Your task to perform on an android device: Clear the shopping cart on target.com. Search for "bose quietcomfort 35" on target.com, select the first entry, and add it to the cart. Image 0: 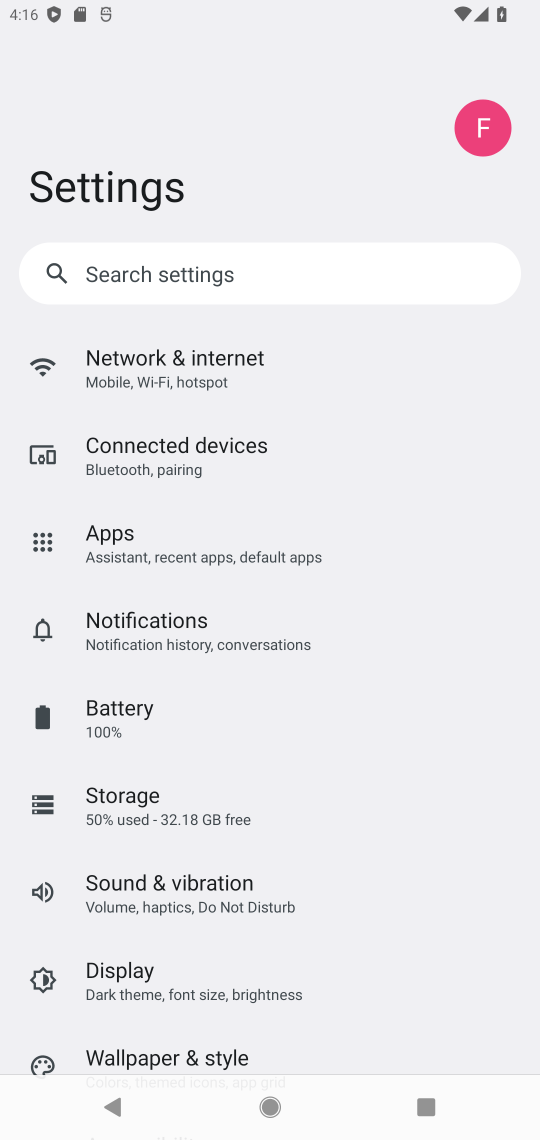
Step 0: press home button
Your task to perform on an android device: Clear the shopping cart on target.com. Search for "bose quietcomfort 35" on target.com, select the first entry, and add it to the cart. Image 1: 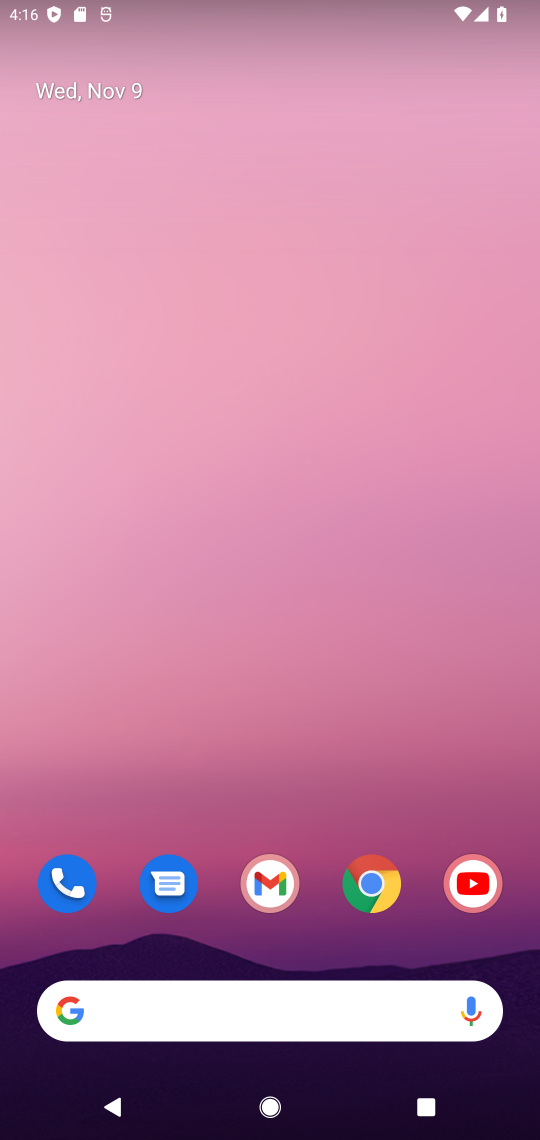
Step 1: click (383, 878)
Your task to perform on an android device: Clear the shopping cart on target.com. Search for "bose quietcomfort 35" on target.com, select the first entry, and add it to the cart. Image 2: 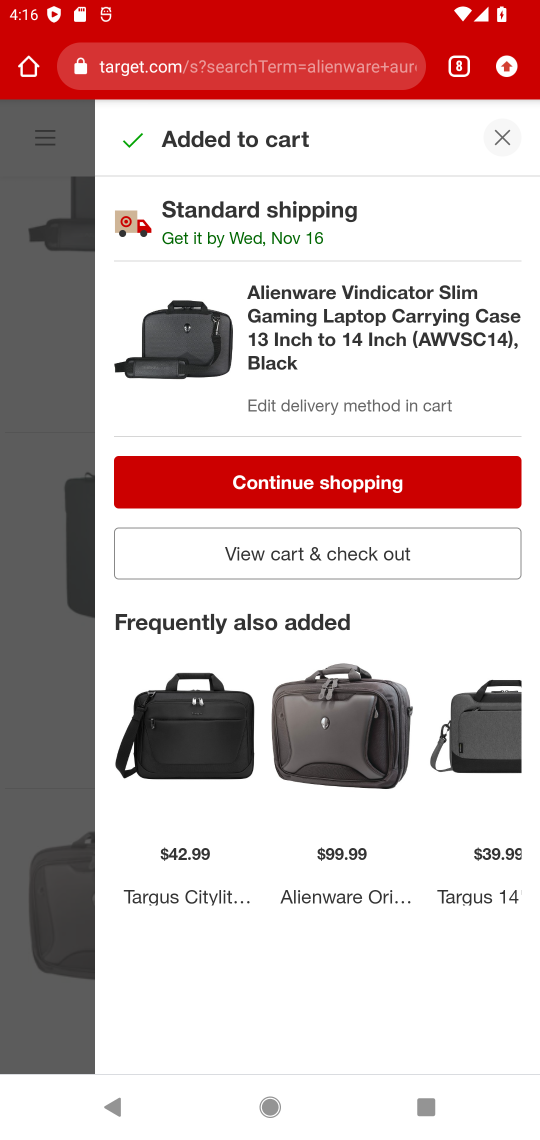
Step 2: click (496, 136)
Your task to perform on an android device: Clear the shopping cart on target.com. Search for "bose quietcomfort 35" on target.com, select the first entry, and add it to the cart. Image 3: 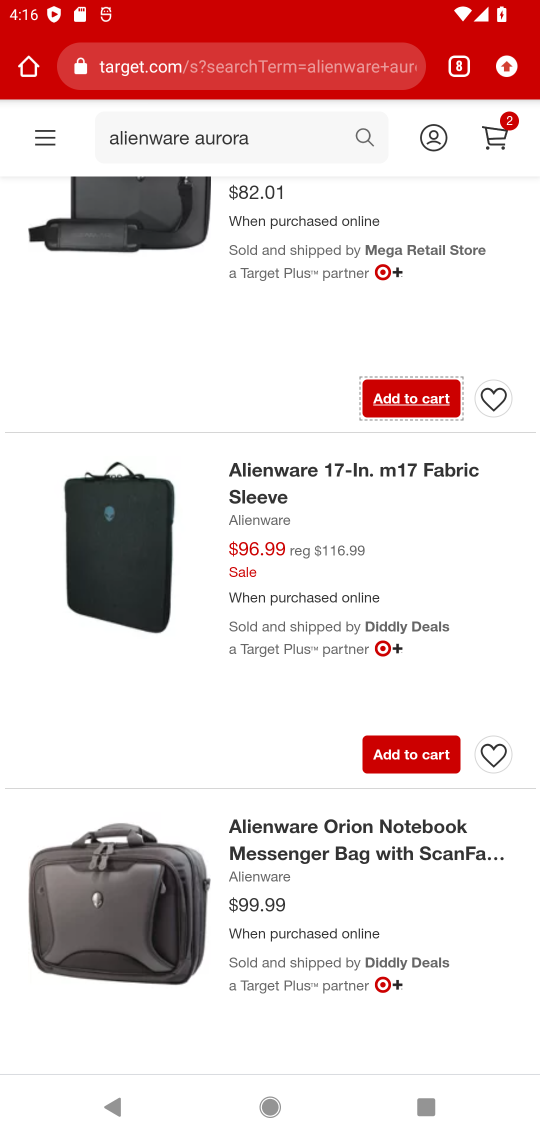
Step 3: click (494, 129)
Your task to perform on an android device: Clear the shopping cart on target.com. Search for "bose quietcomfort 35" on target.com, select the first entry, and add it to the cart. Image 4: 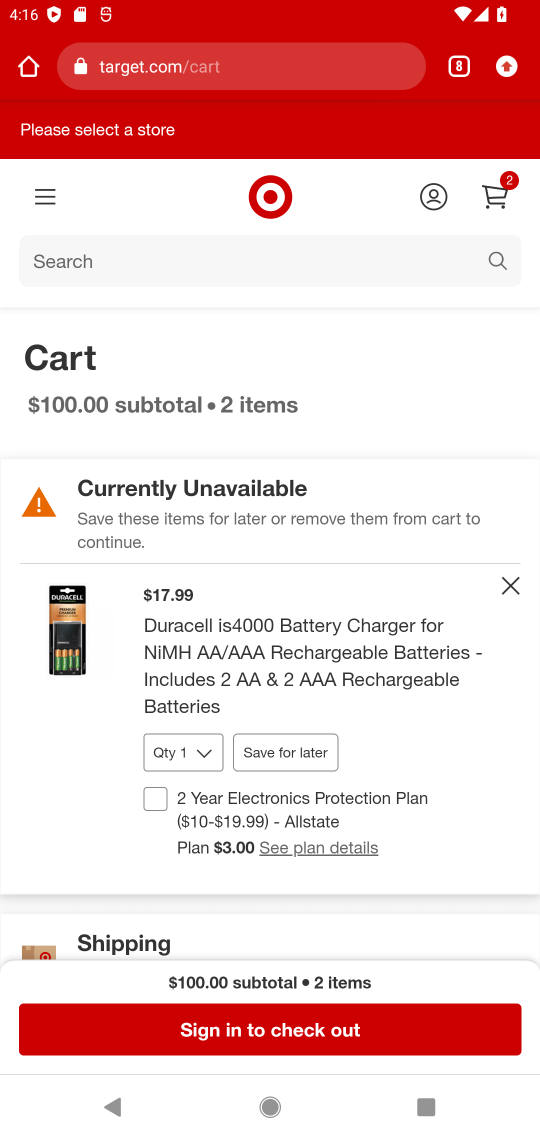
Step 4: click (503, 585)
Your task to perform on an android device: Clear the shopping cart on target.com. Search for "bose quietcomfort 35" on target.com, select the first entry, and add it to the cart. Image 5: 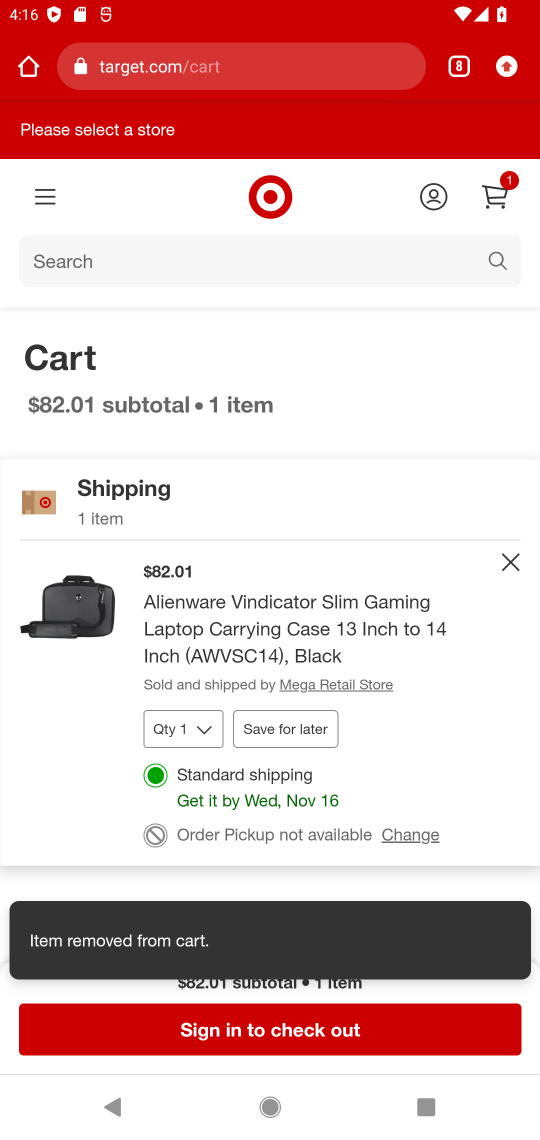
Step 5: click (503, 585)
Your task to perform on an android device: Clear the shopping cart on target.com. Search for "bose quietcomfort 35" on target.com, select the first entry, and add it to the cart. Image 6: 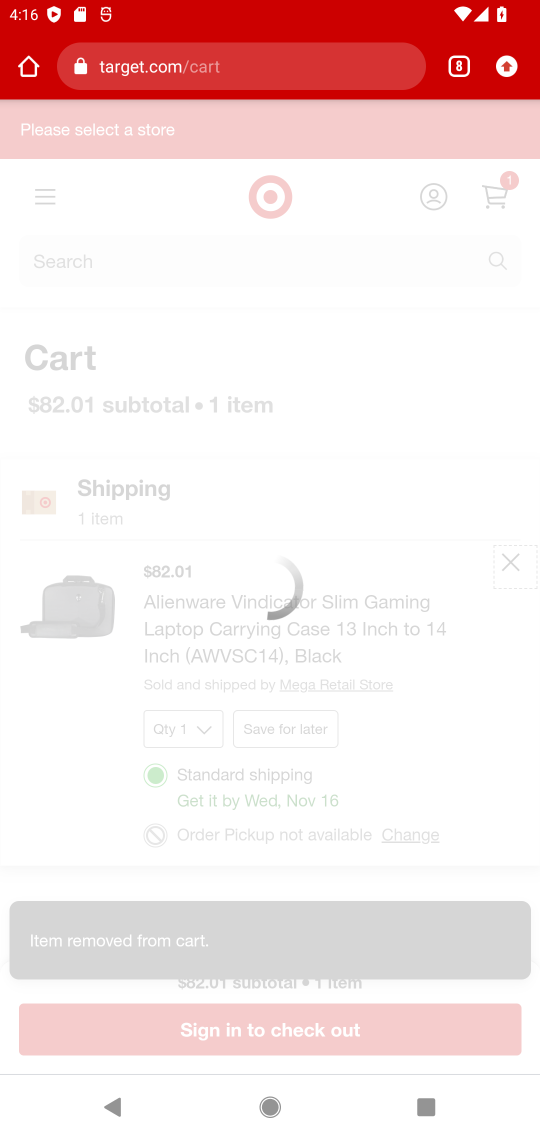
Step 6: click (507, 556)
Your task to perform on an android device: Clear the shopping cart on target.com. Search for "bose quietcomfort 35" on target.com, select the first entry, and add it to the cart. Image 7: 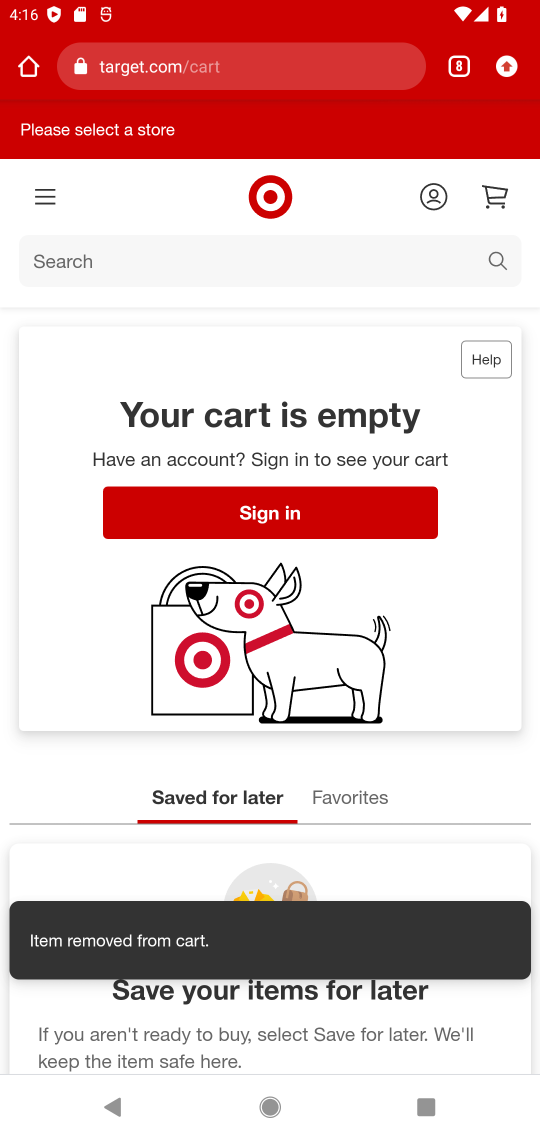
Step 7: click (71, 269)
Your task to perform on an android device: Clear the shopping cart on target.com. Search for "bose quietcomfort 35" on target.com, select the first entry, and add it to the cart. Image 8: 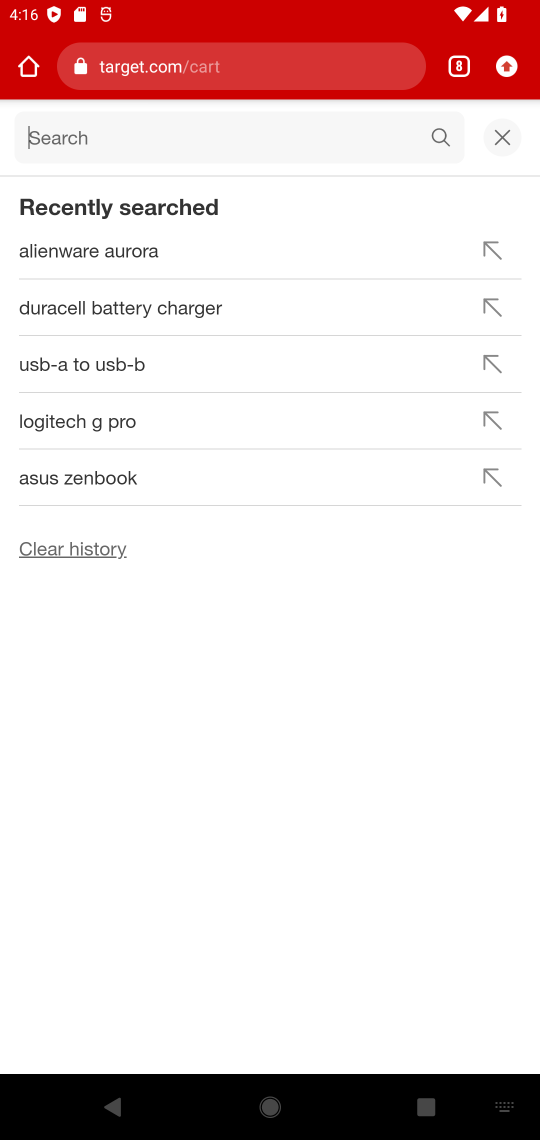
Step 8: type "bose quietcomfort 35"
Your task to perform on an android device: Clear the shopping cart on target.com. Search for "bose quietcomfort 35" on target.com, select the first entry, and add it to the cart. Image 9: 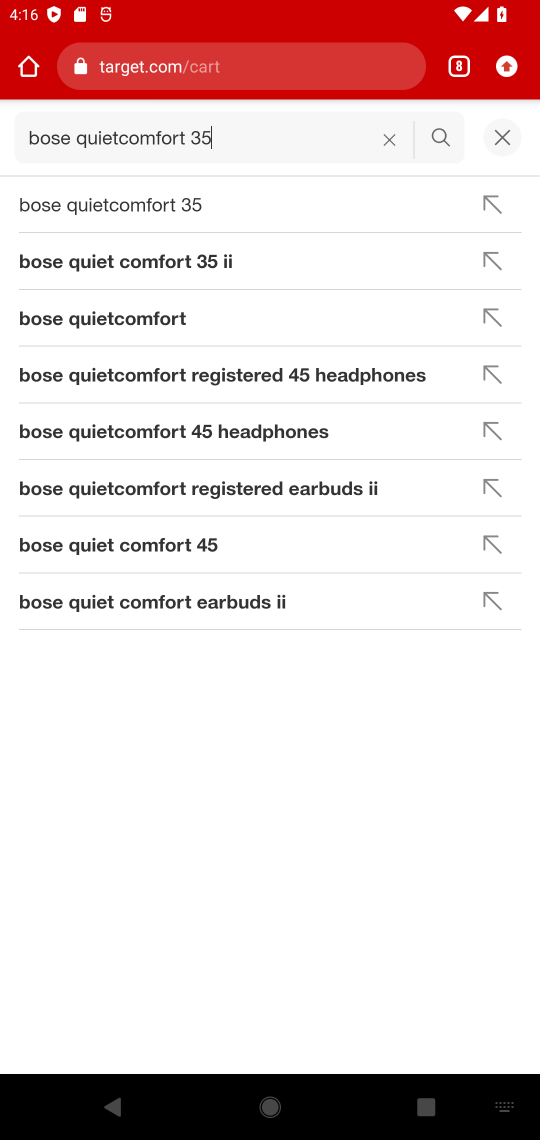
Step 9: click (166, 208)
Your task to perform on an android device: Clear the shopping cart on target.com. Search for "bose quietcomfort 35" on target.com, select the first entry, and add it to the cart. Image 10: 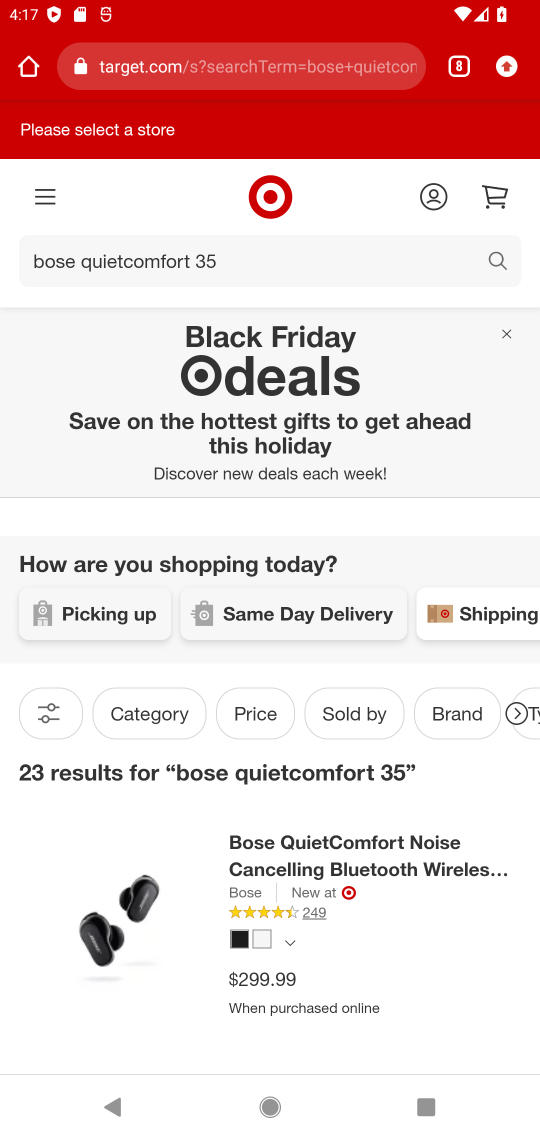
Step 10: drag from (360, 997) to (377, 533)
Your task to perform on an android device: Clear the shopping cart on target.com. Search for "bose quietcomfort 35" on target.com, select the first entry, and add it to the cart. Image 11: 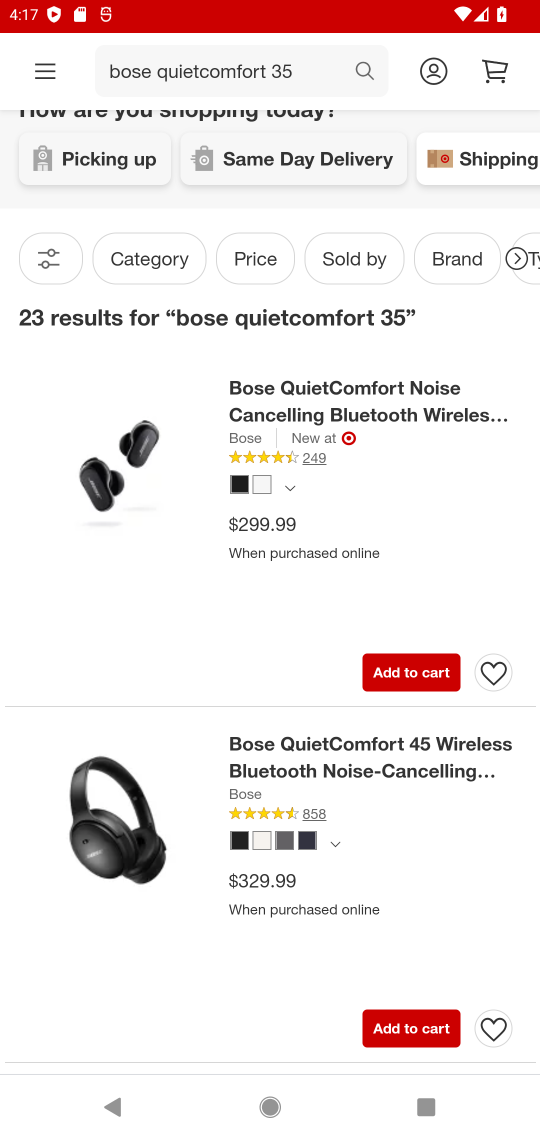
Step 11: click (402, 662)
Your task to perform on an android device: Clear the shopping cart on target.com. Search for "bose quietcomfort 35" on target.com, select the first entry, and add it to the cart. Image 12: 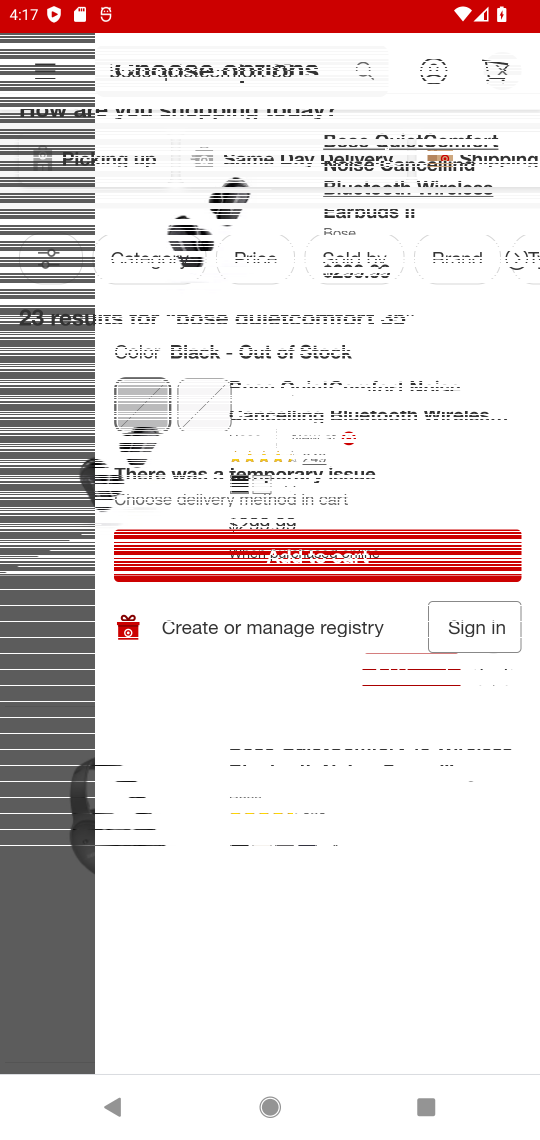
Step 12: click (362, 561)
Your task to perform on an android device: Clear the shopping cart on target.com. Search for "bose quietcomfort 35" on target.com, select the first entry, and add it to the cart. Image 13: 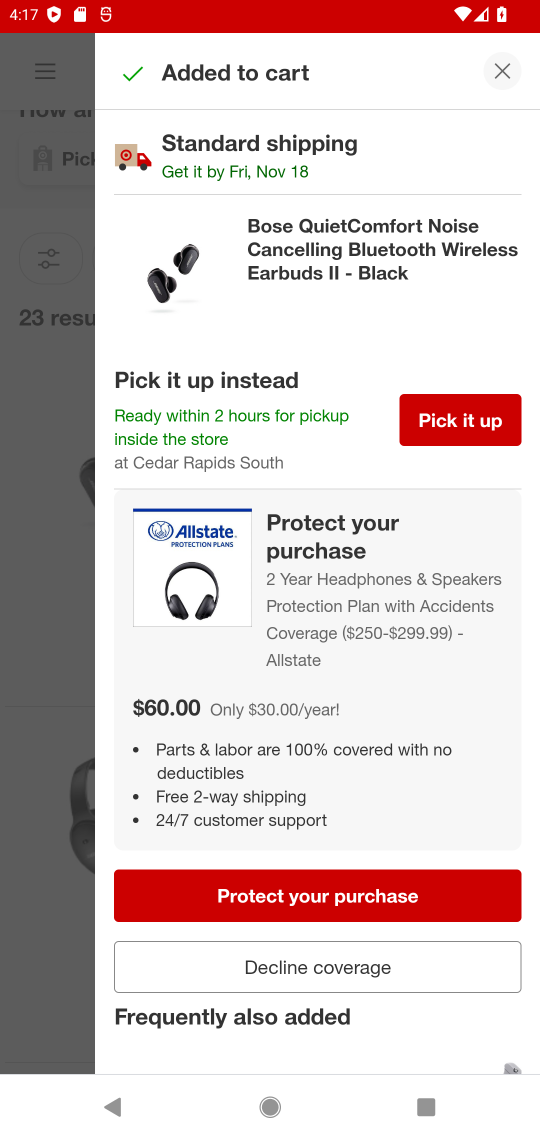
Step 13: task complete